Your task to perform on an android device: Go to ESPN.com Image 0: 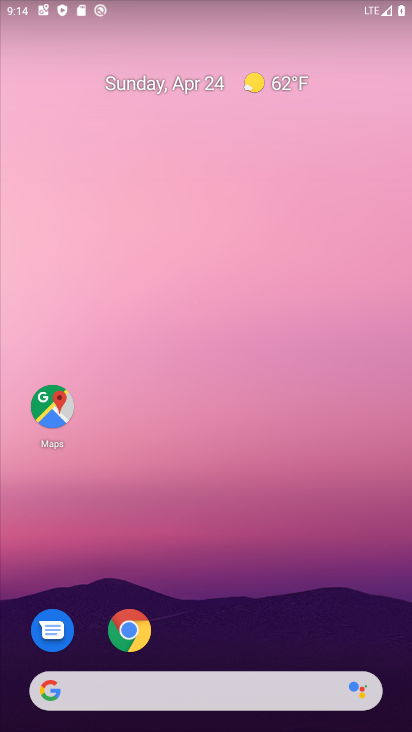
Step 0: drag from (213, 477) to (71, 2)
Your task to perform on an android device: Go to ESPN.com Image 1: 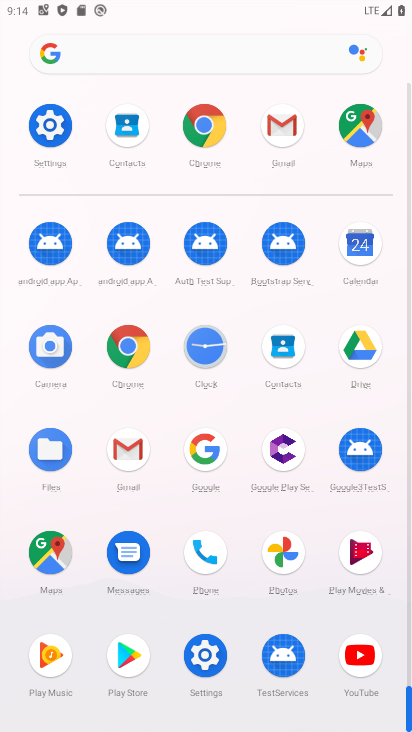
Step 1: click (202, 120)
Your task to perform on an android device: Go to ESPN.com Image 2: 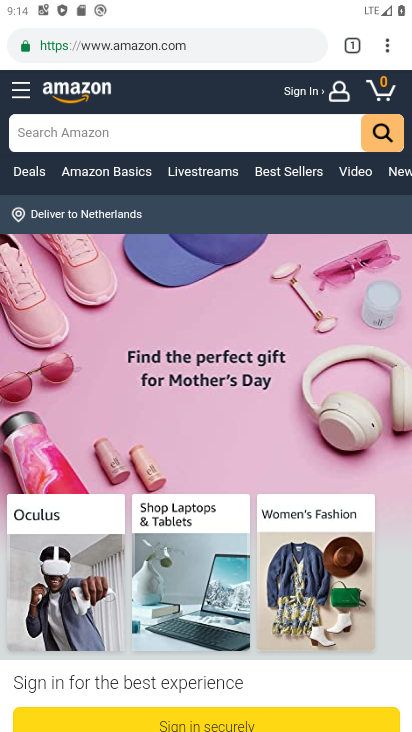
Step 2: click (199, 47)
Your task to perform on an android device: Go to ESPN.com Image 3: 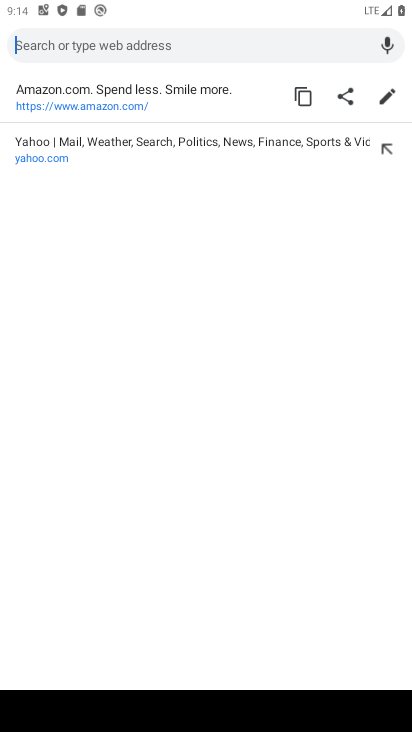
Step 3: type "ESPN.com"
Your task to perform on an android device: Go to ESPN.com Image 4: 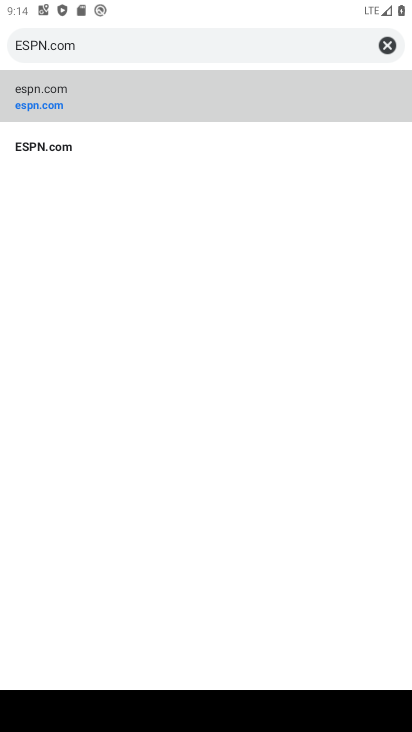
Step 4: click (74, 93)
Your task to perform on an android device: Go to ESPN.com Image 5: 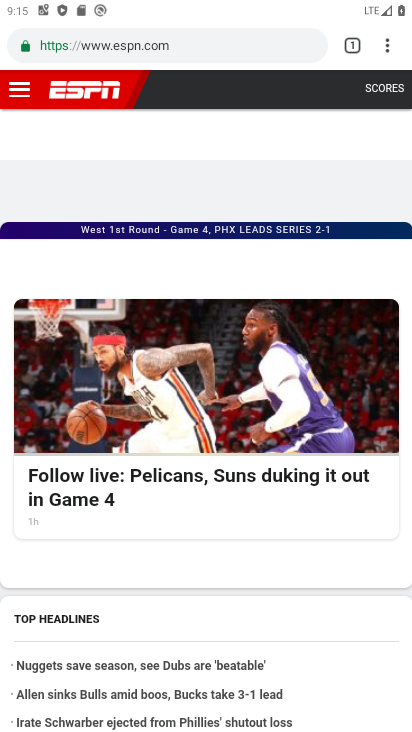
Step 5: task complete